Your task to perform on an android device: Add "acer predator" to the cart on costco.com, then select checkout. Image 0: 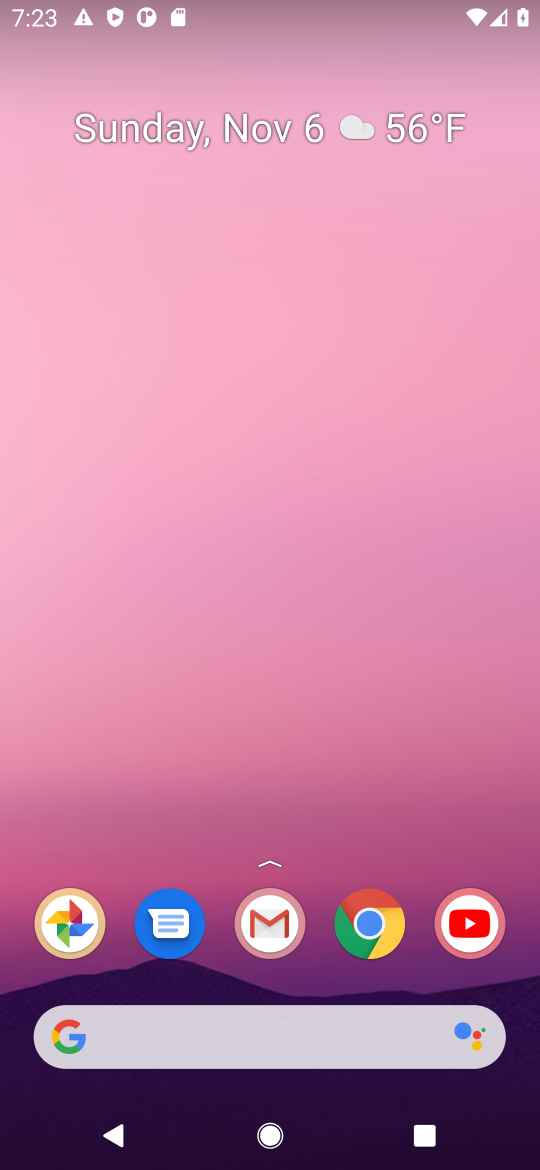
Step 0: click (377, 928)
Your task to perform on an android device: Add "acer predator" to the cart on costco.com, then select checkout. Image 1: 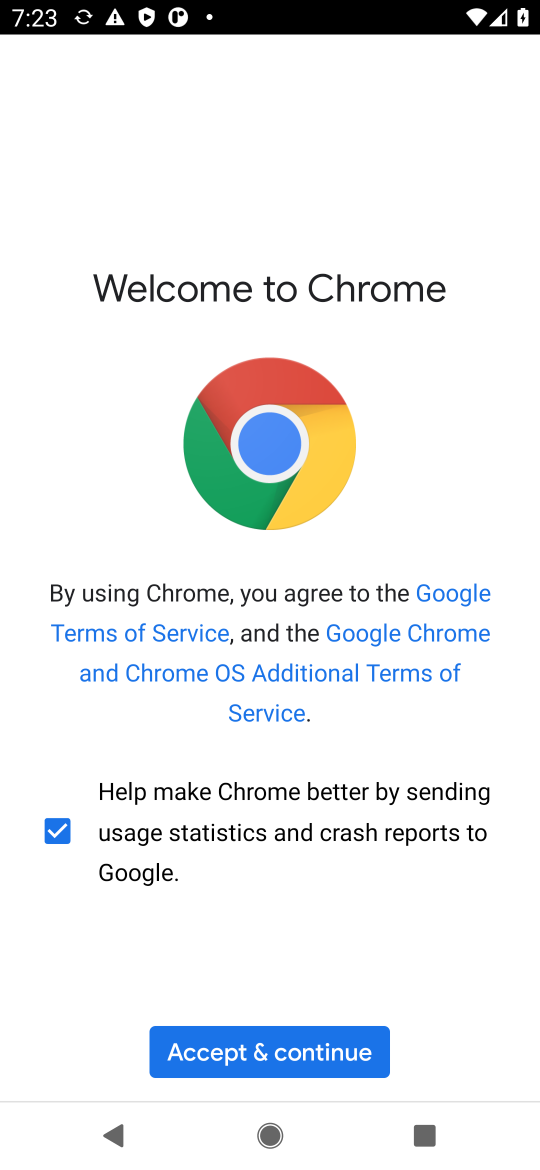
Step 1: click (274, 1043)
Your task to perform on an android device: Add "acer predator" to the cart on costco.com, then select checkout. Image 2: 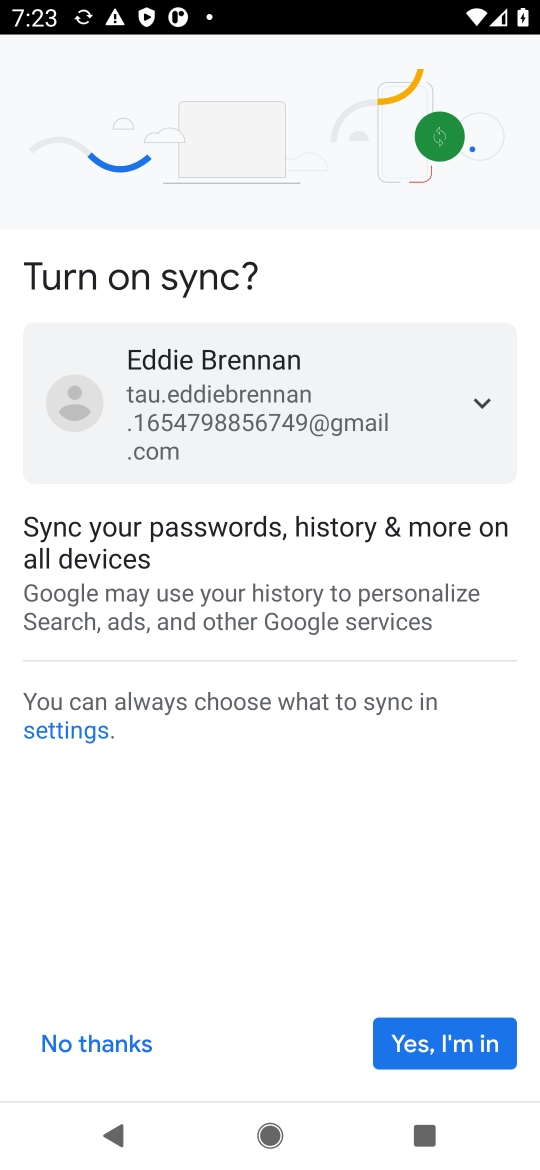
Step 2: click (125, 1048)
Your task to perform on an android device: Add "acer predator" to the cart on costco.com, then select checkout. Image 3: 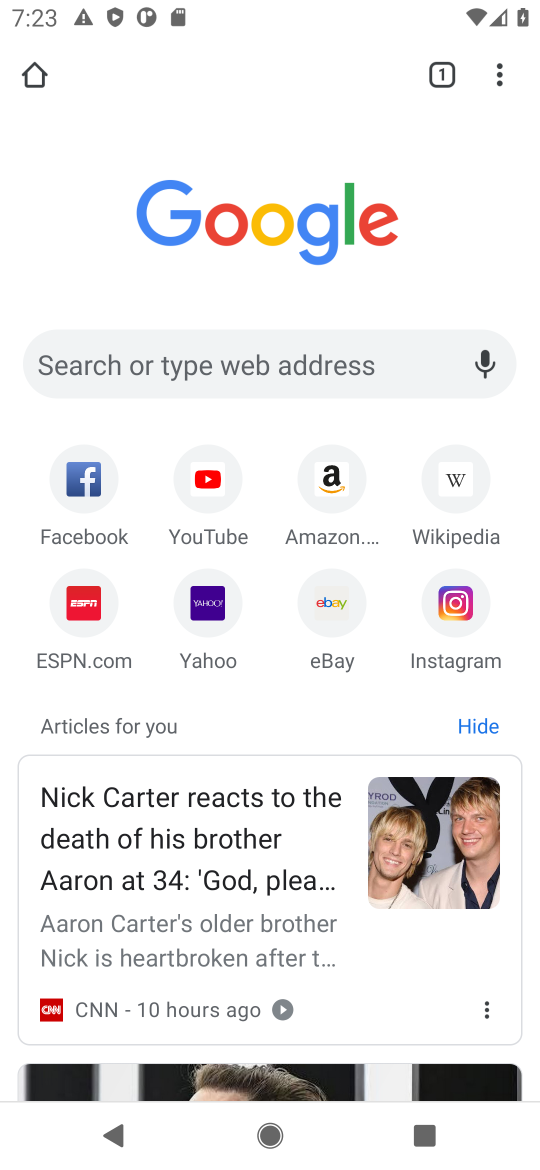
Step 3: click (192, 358)
Your task to perform on an android device: Add "acer predator" to the cart on costco.com, then select checkout. Image 4: 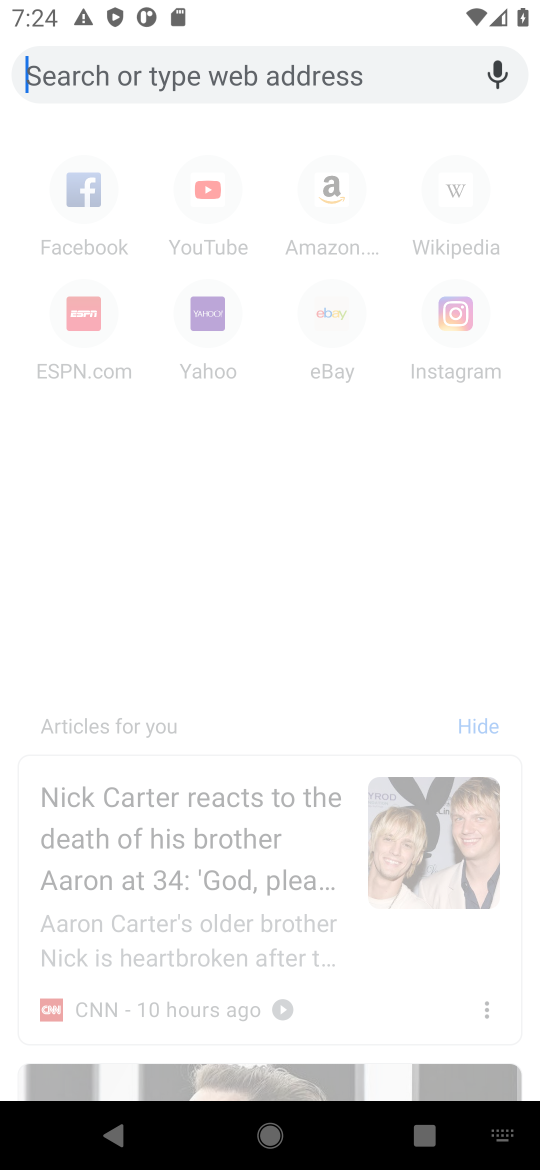
Step 4: type "costco.com"
Your task to perform on an android device: Add "acer predator" to the cart on costco.com, then select checkout. Image 5: 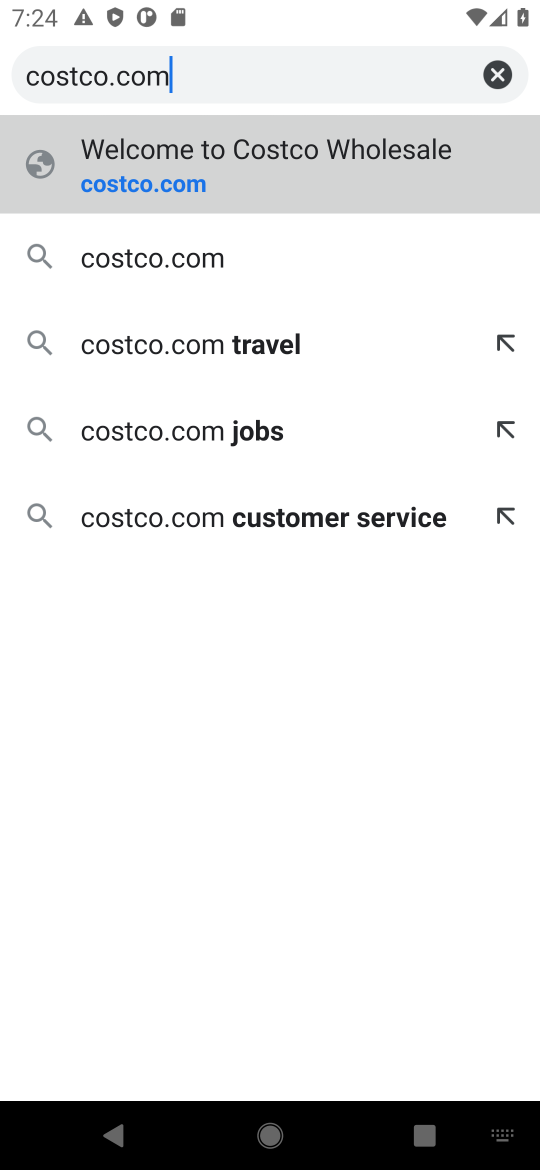
Step 5: click (116, 175)
Your task to perform on an android device: Add "acer predator" to the cart on costco.com, then select checkout. Image 6: 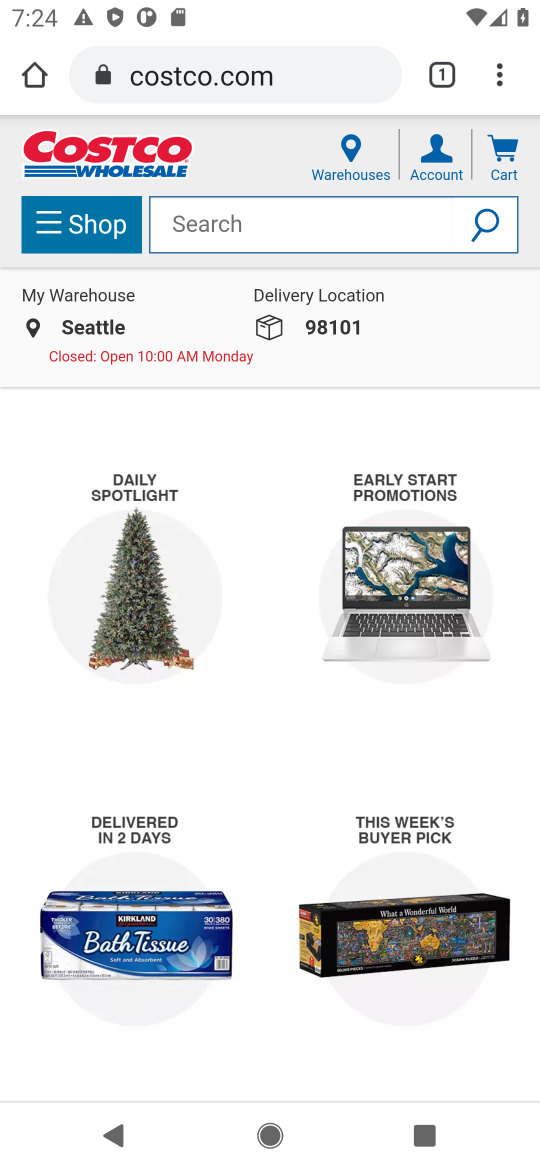
Step 6: click (202, 216)
Your task to perform on an android device: Add "acer predator" to the cart on costco.com, then select checkout. Image 7: 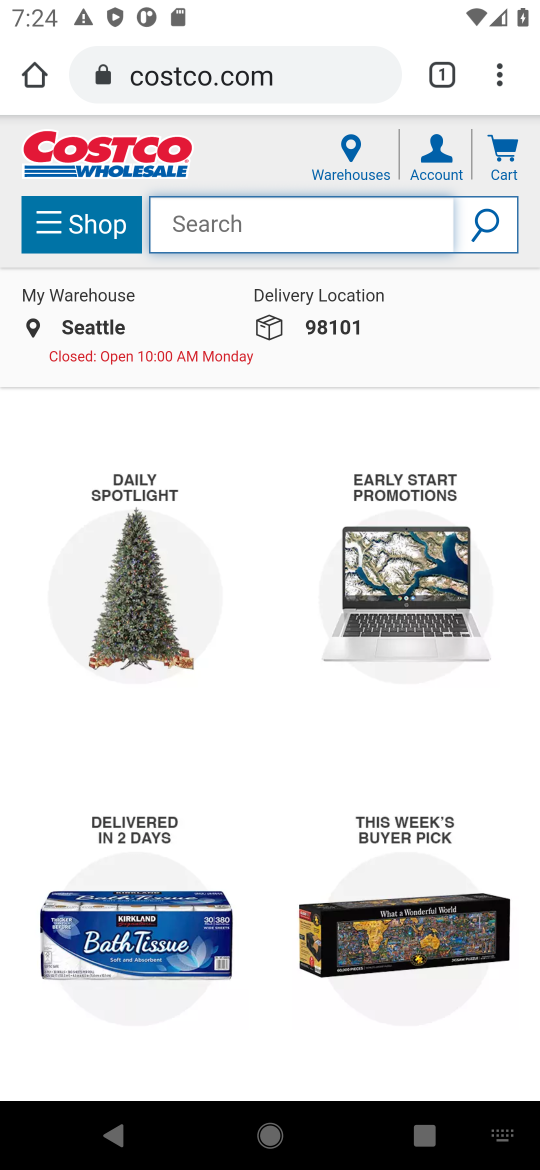
Step 7: type "acer predator"
Your task to perform on an android device: Add "acer predator" to the cart on costco.com, then select checkout. Image 8: 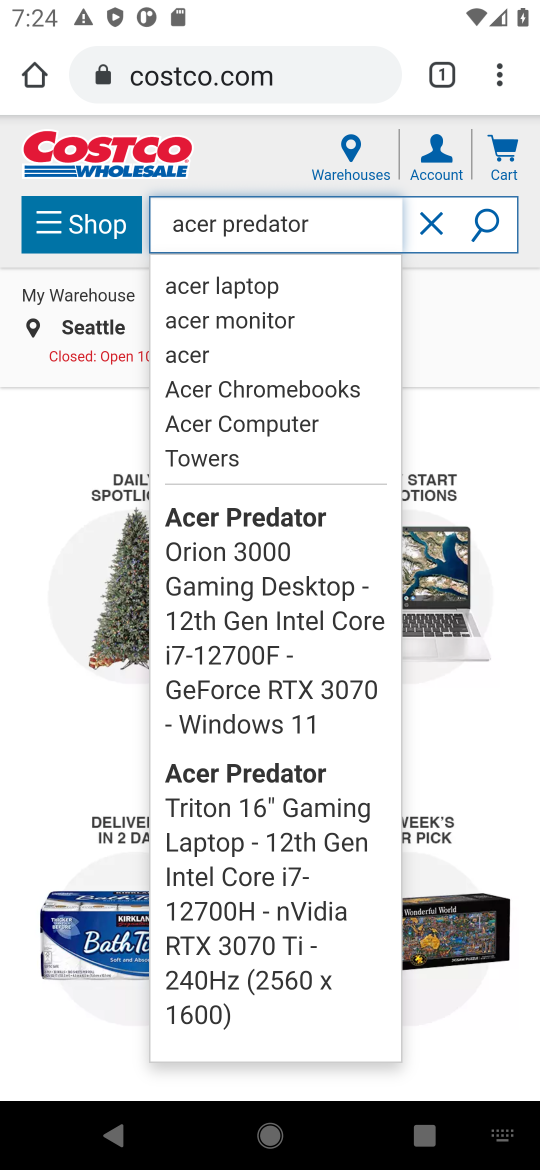
Step 8: click (489, 218)
Your task to perform on an android device: Add "acer predator" to the cart on costco.com, then select checkout. Image 9: 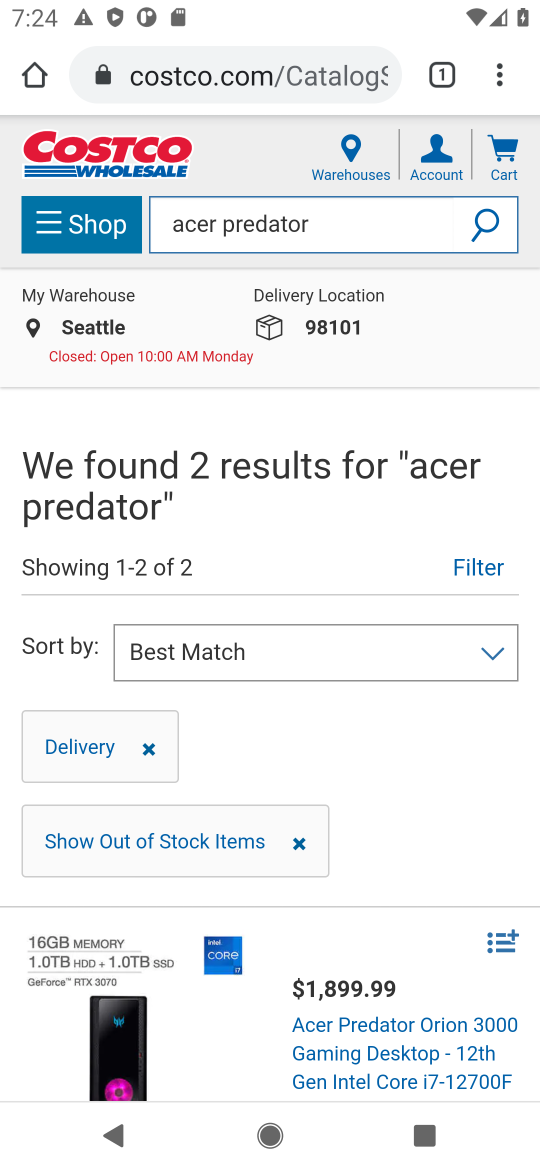
Step 9: drag from (336, 746) to (351, 518)
Your task to perform on an android device: Add "acer predator" to the cart on costco.com, then select checkout. Image 10: 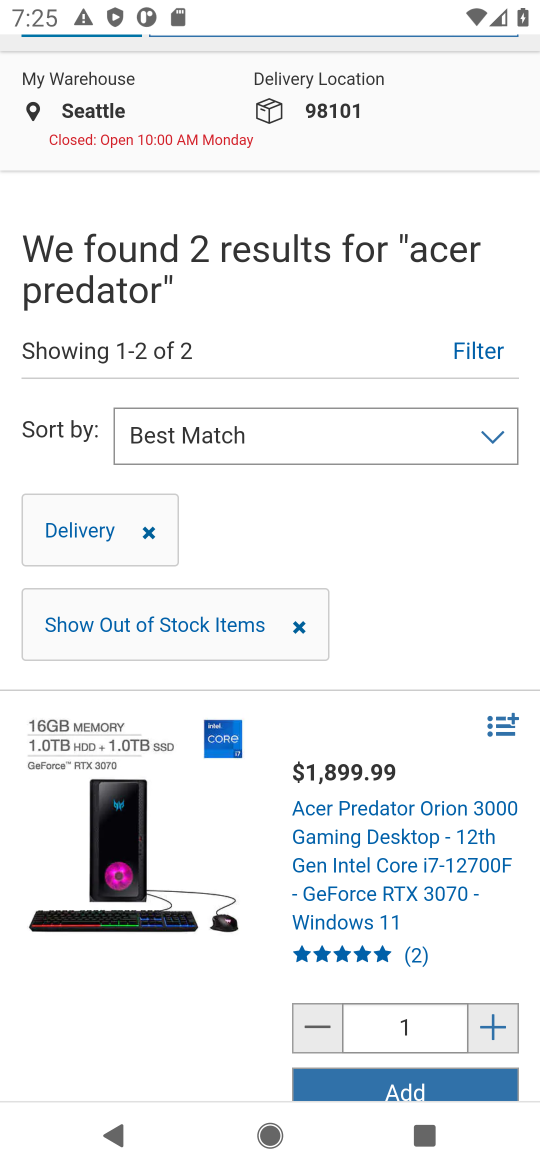
Step 10: click (316, 863)
Your task to perform on an android device: Add "acer predator" to the cart on costco.com, then select checkout. Image 11: 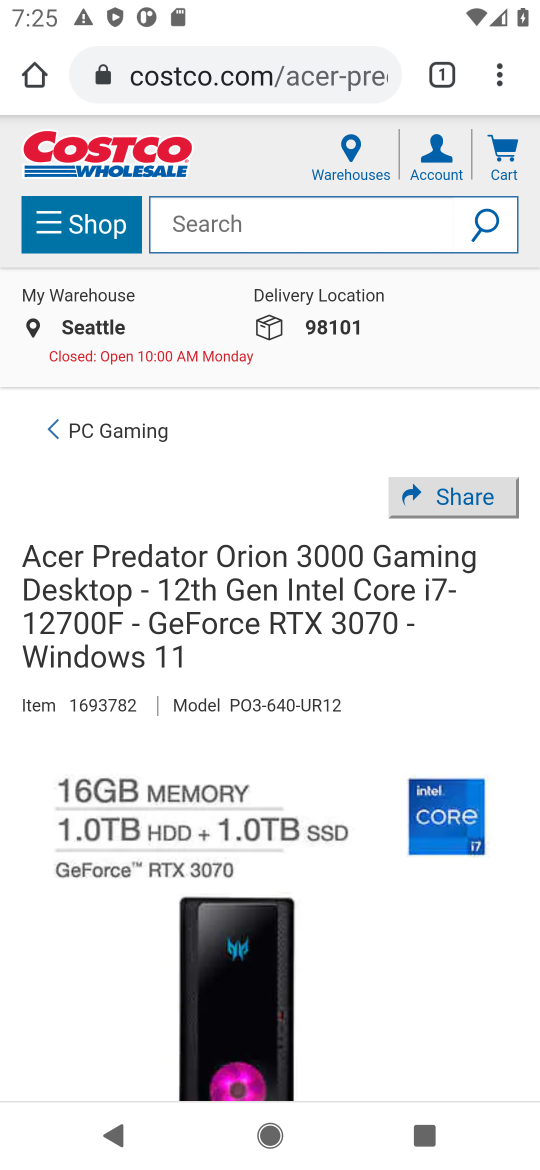
Step 11: drag from (344, 959) to (336, 352)
Your task to perform on an android device: Add "acer predator" to the cart on costco.com, then select checkout. Image 12: 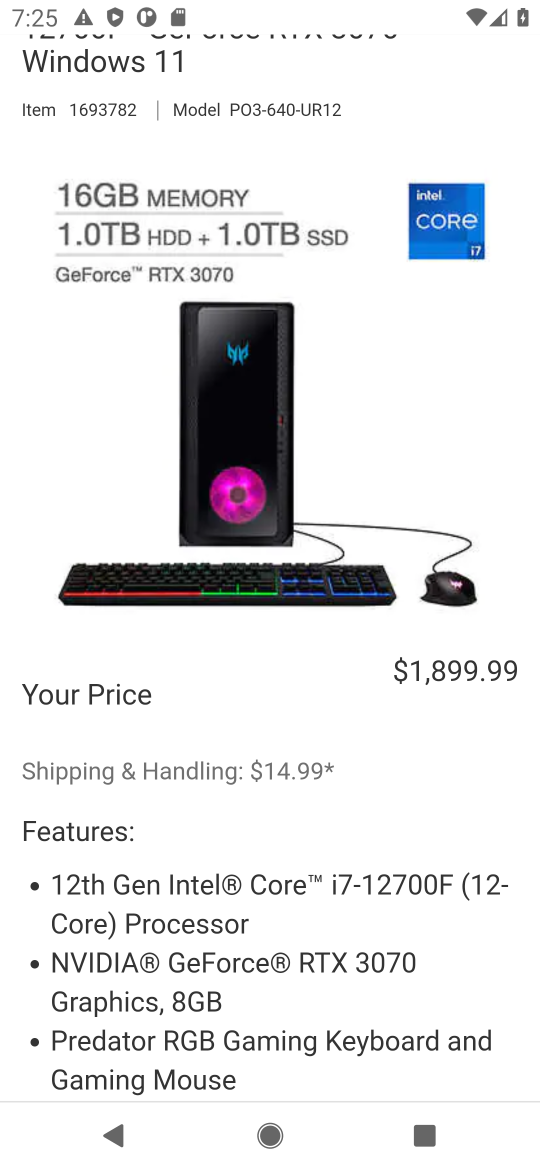
Step 12: drag from (301, 754) to (279, 401)
Your task to perform on an android device: Add "acer predator" to the cart on costco.com, then select checkout. Image 13: 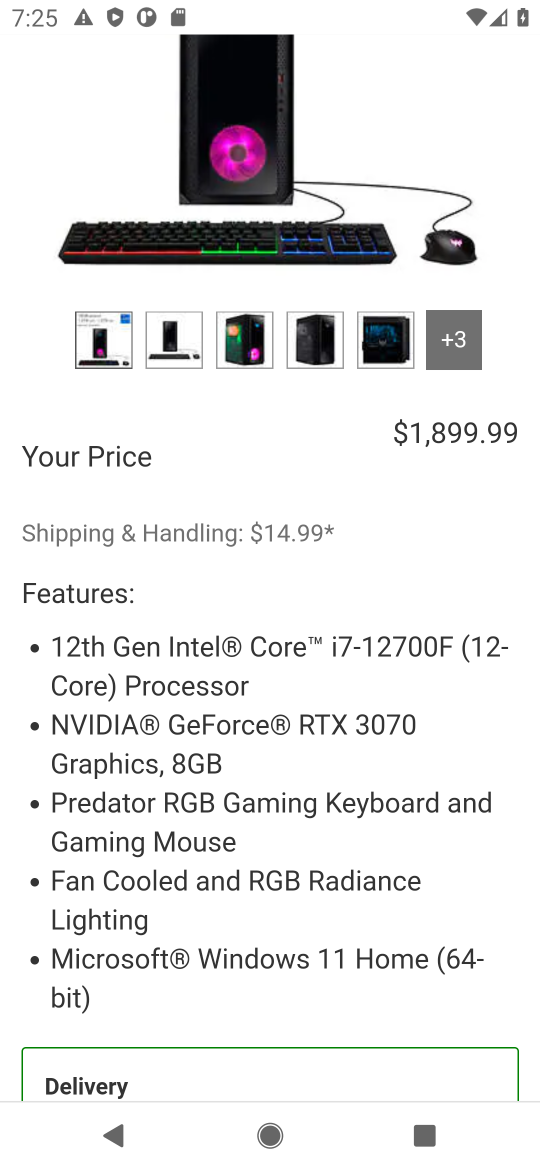
Step 13: drag from (254, 870) to (254, 307)
Your task to perform on an android device: Add "acer predator" to the cart on costco.com, then select checkout. Image 14: 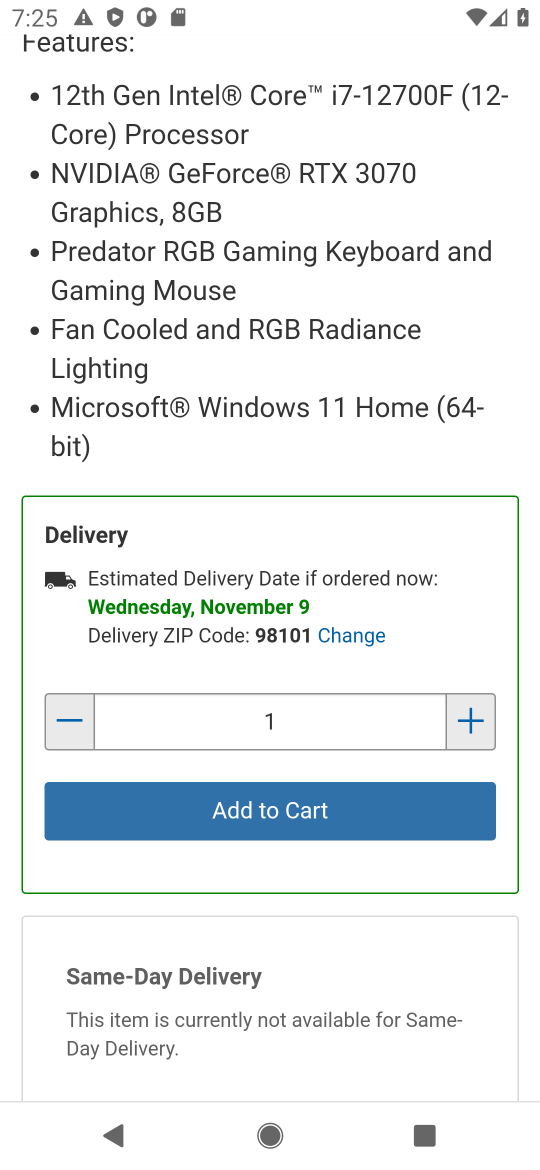
Step 14: click (249, 812)
Your task to perform on an android device: Add "acer predator" to the cart on costco.com, then select checkout. Image 15: 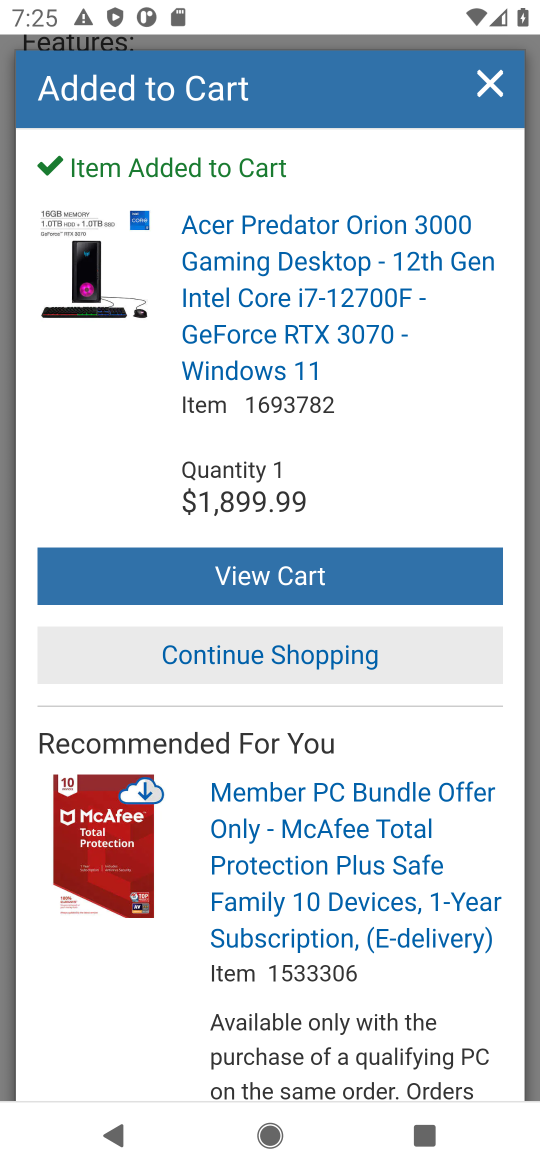
Step 15: click (236, 590)
Your task to perform on an android device: Add "acer predator" to the cart on costco.com, then select checkout. Image 16: 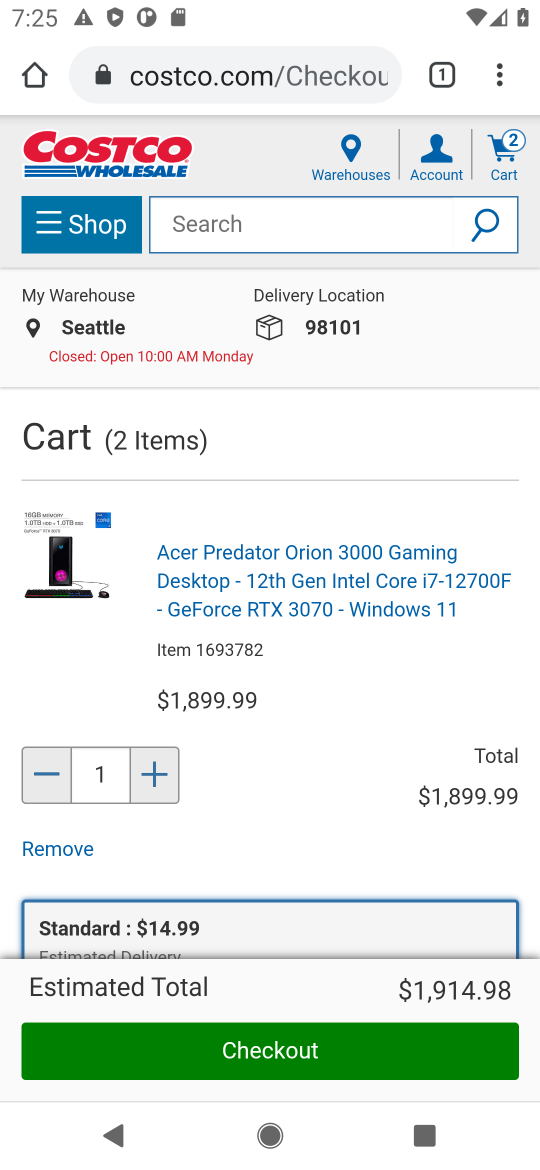
Step 16: click (263, 1059)
Your task to perform on an android device: Add "acer predator" to the cart on costco.com, then select checkout. Image 17: 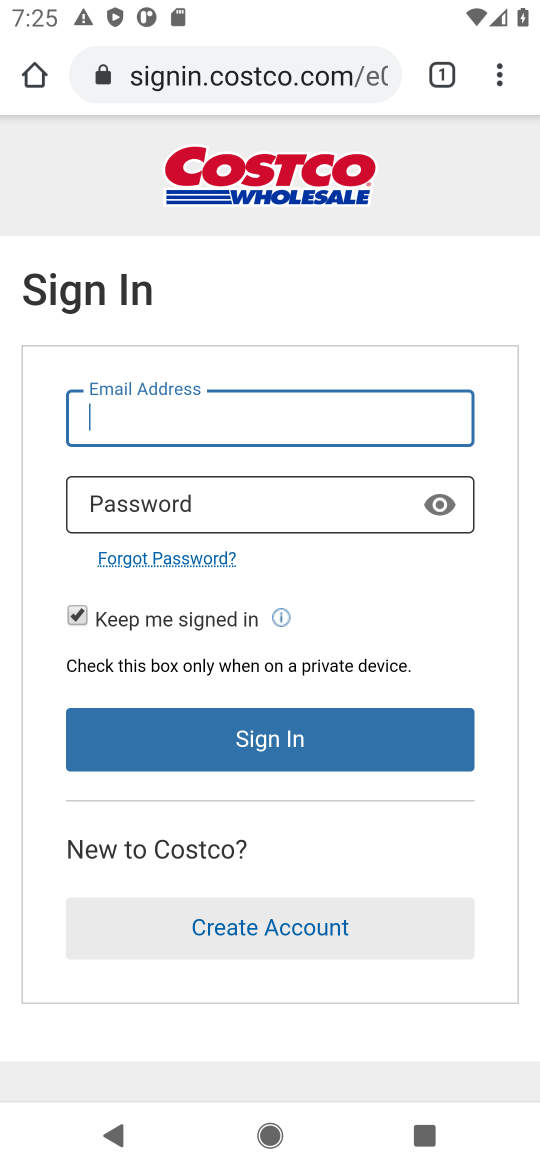
Step 17: task complete